Your task to perform on an android device: turn off airplane mode Image 0: 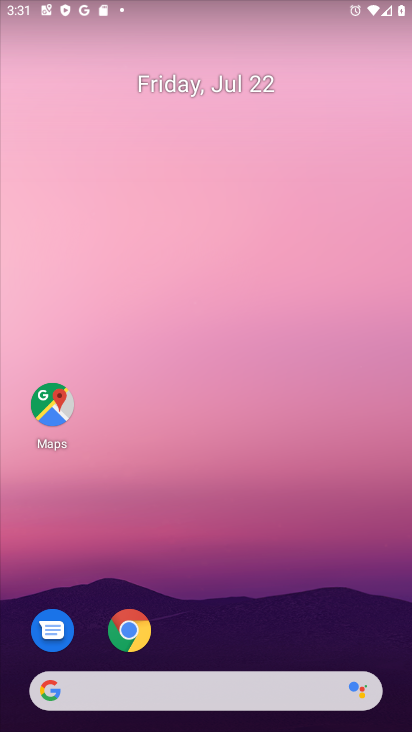
Step 0: drag from (235, 674) to (201, 3)
Your task to perform on an android device: turn off airplane mode Image 1: 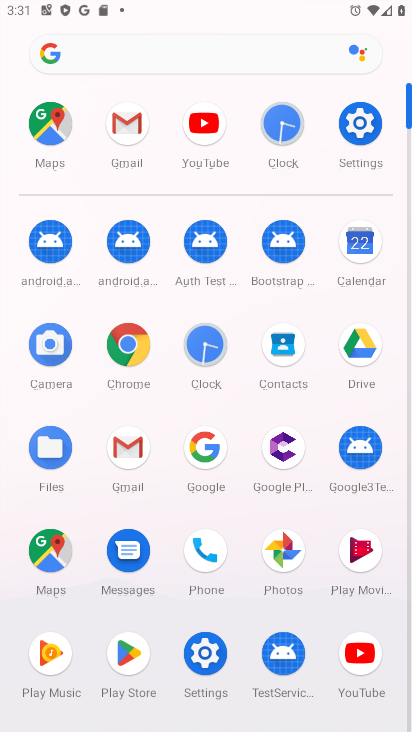
Step 1: click (359, 143)
Your task to perform on an android device: turn off airplane mode Image 2: 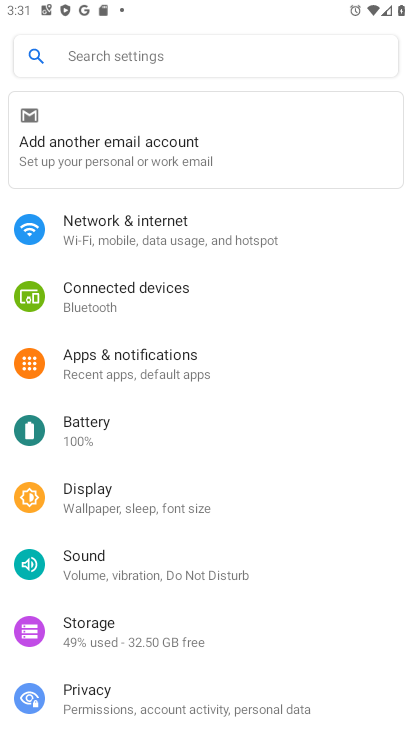
Step 2: click (108, 222)
Your task to perform on an android device: turn off airplane mode Image 3: 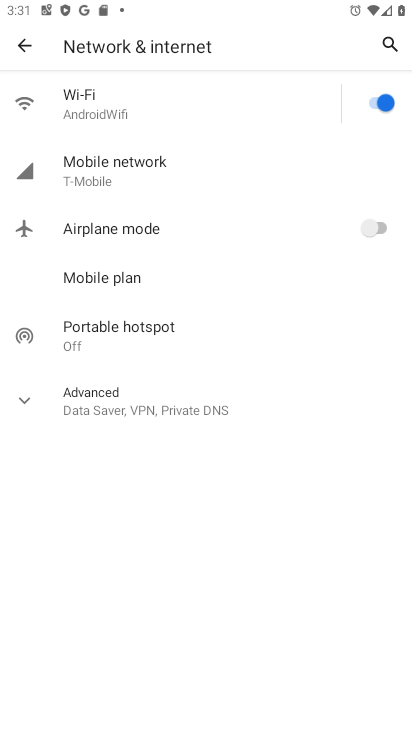
Step 3: task complete